Your task to perform on an android device: turn on the 24-hour format for clock Image 0: 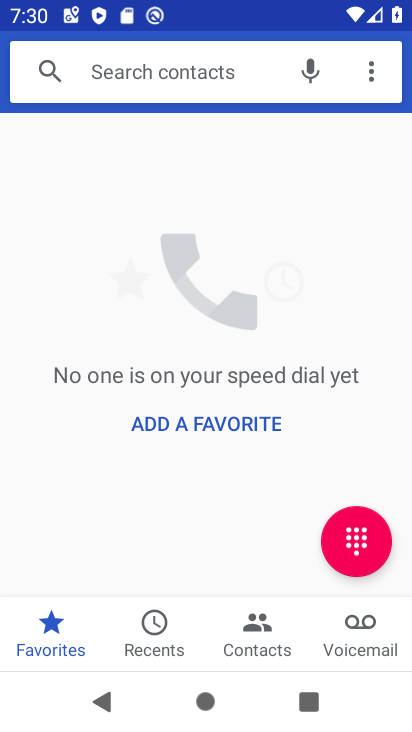
Step 0: press home button
Your task to perform on an android device: turn on the 24-hour format for clock Image 1: 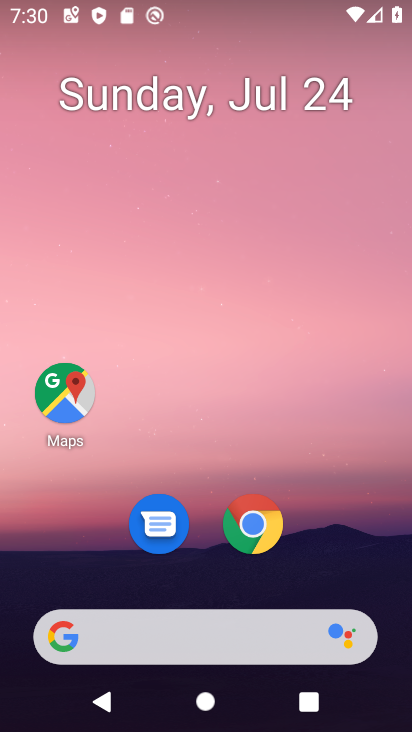
Step 1: drag from (208, 632) to (293, 115)
Your task to perform on an android device: turn on the 24-hour format for clock Image 2: 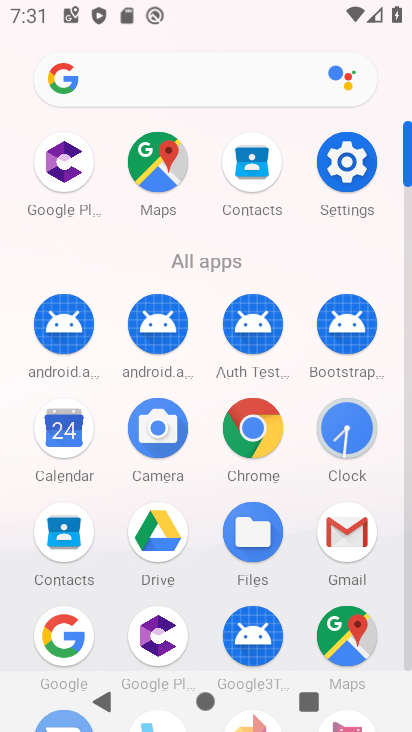
Step 2: click (338, 428)
Your task to perform on an android device: turn on the 24-hour format for clock Image 3: 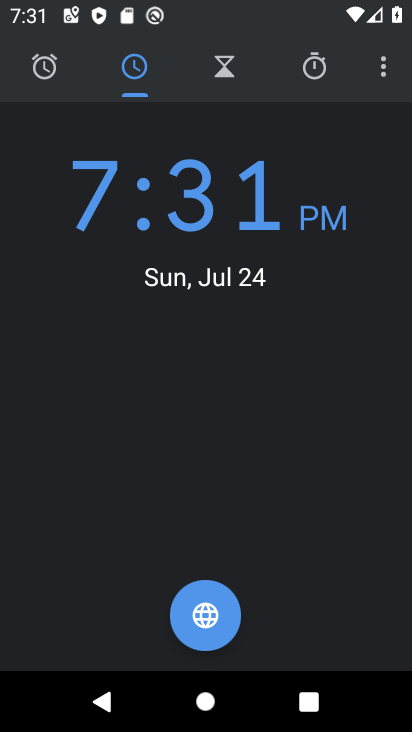
Step 3: click (380, 66)
Your task to perform on an android device: turn on the 24-hour format for clock Image 4: 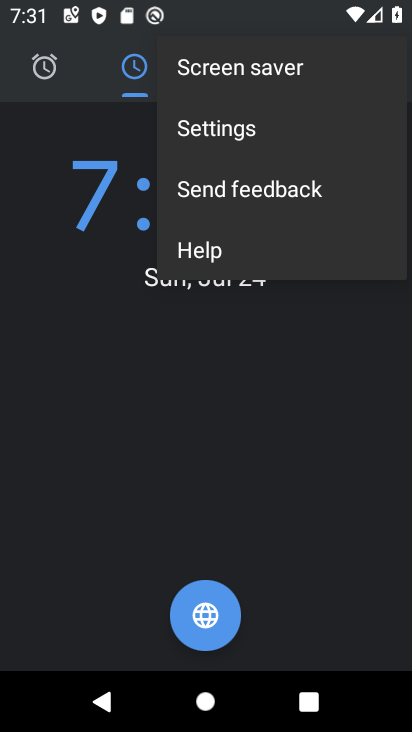
Step 4: click (223, 123)
Your task to perform on an android device: turn on the 24-hour format for clock Image 5: 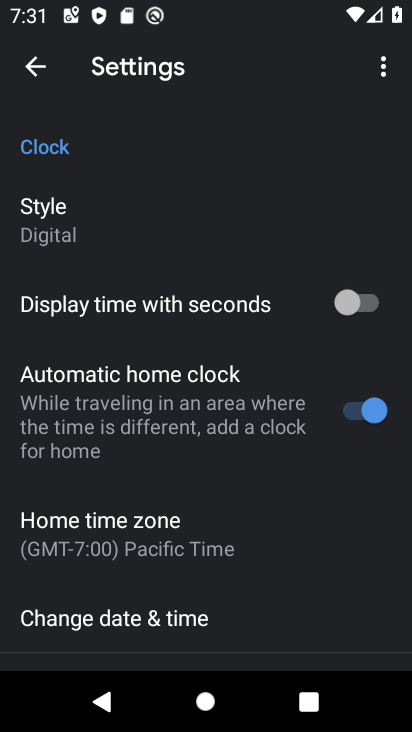
Step 5: drag from (206, 490) to (228, 109)
Your task to perform on an android device: turn on the 24-hour format for clock Image 6: 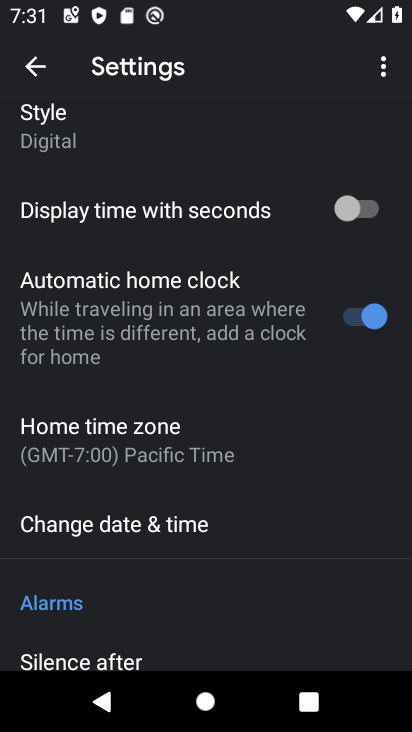
Step 6: click (191, 530)
Your task to perform on an android device: turn on the 24-hour format for clock Image 7: 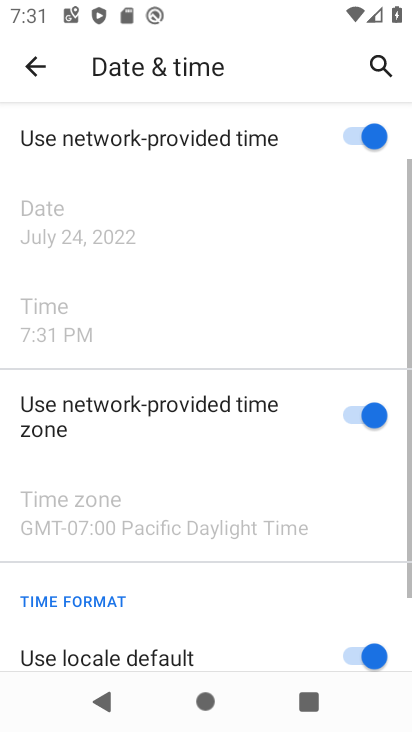
Step 7: drag from (179, 575) to (306, 66)
Your task to perform on an android device: turn on the 24-hour format for clock Image 8: 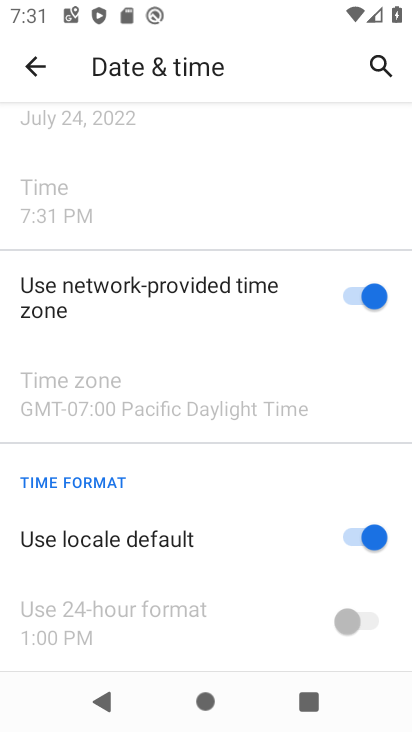
Step 8: click (353, 534)
Your task to perform on an android device: turn on the 24-hour format for clock Image 9: 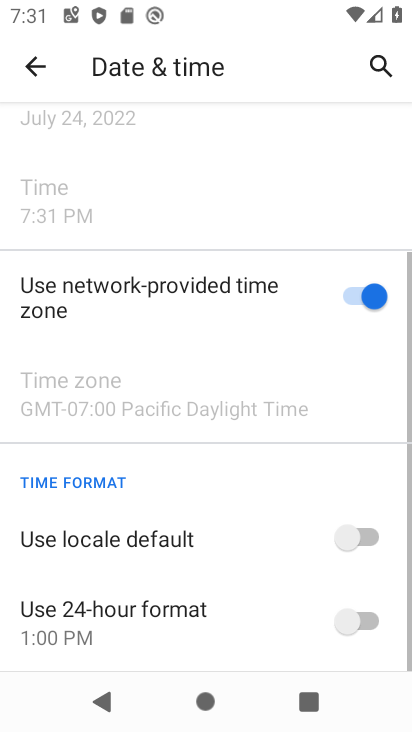
Step 9: click (363, 616)
Your task to perform on an android device: turn on the 24-hour format for clock Image 10: 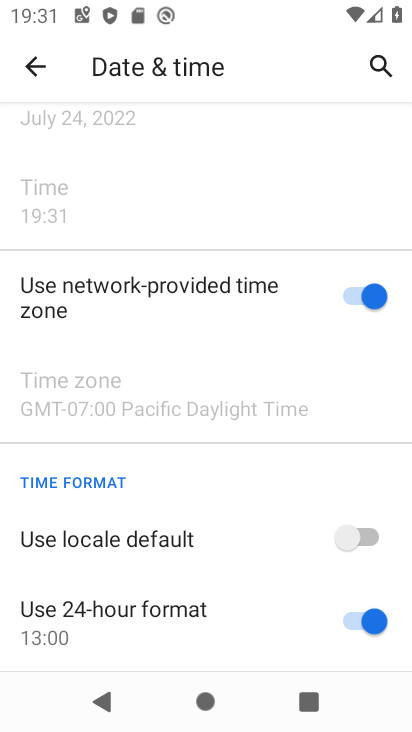
Step 10: task complete